Your task to perform on an android device: turn off notifications settings in the gmail app Image 0: 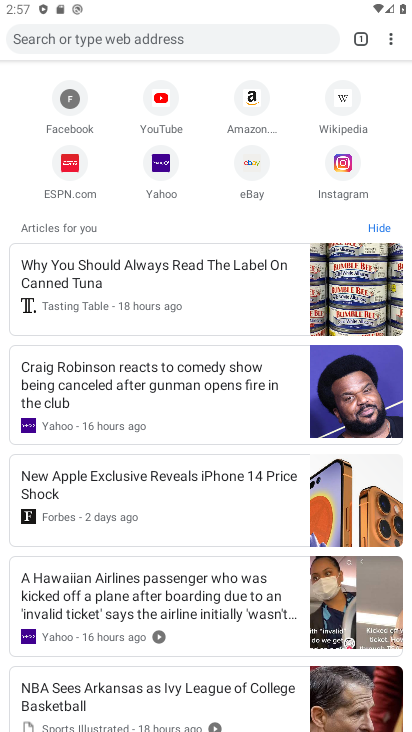
Step 0: press home button
Your task to perform on an android device: turn off notifications settings in the gmail app Image 1: 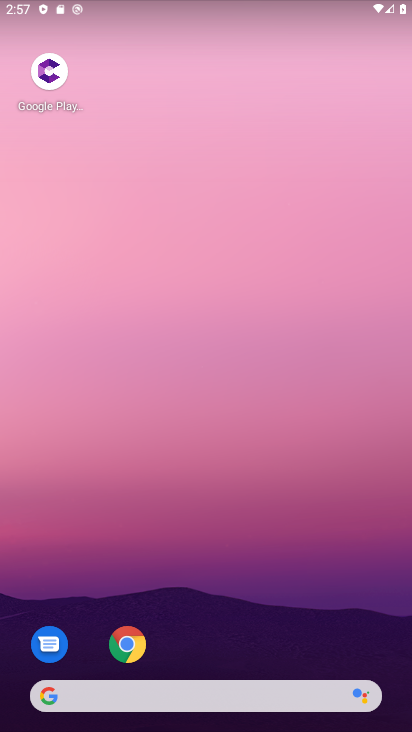
Step 1: drag from (317, 651) to (263, 202)
Your task to perform on an android device: turn off notifications settings in the gmail app Image 2: 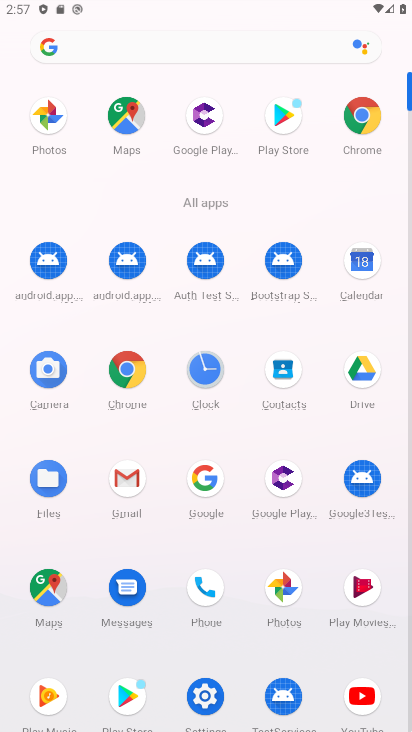
Step 2: click (124, 479)
Your task to perform on an android device: turn off notifications settings in the gmail app Image 3: 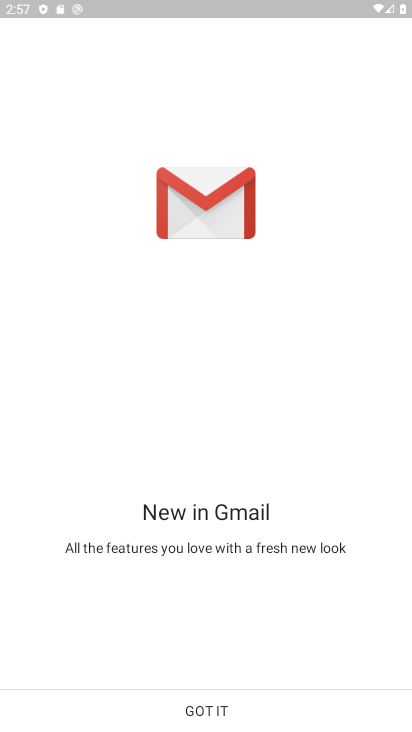
Step 3: click (208, 711)
Your task to perform on an android device: turn off notifications settings in the gmail app Image 4: 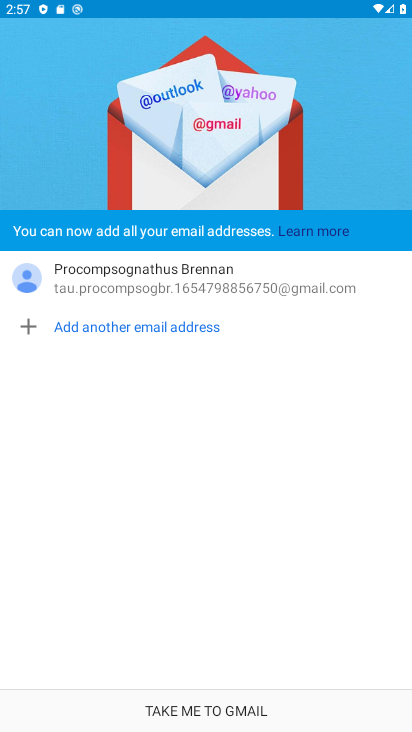
Step 4: click (208, 711)
Your task to perform on an android device: turn off notifications settings in the gmail app Image 5: 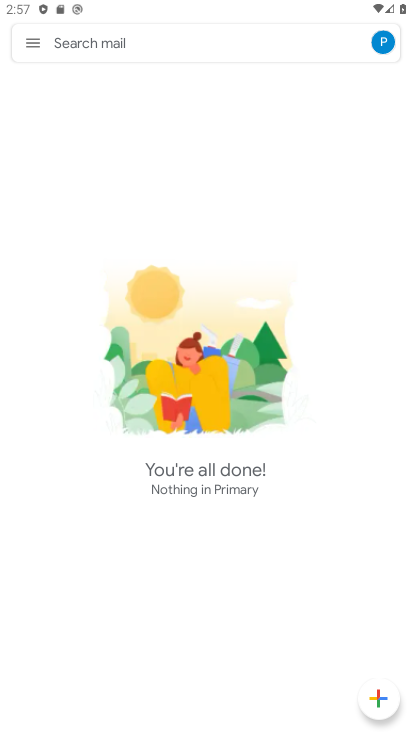
Step 5: click (33, 43)
Your task to perform on an android device: turn off notifications settings in the gmail app Image 6: 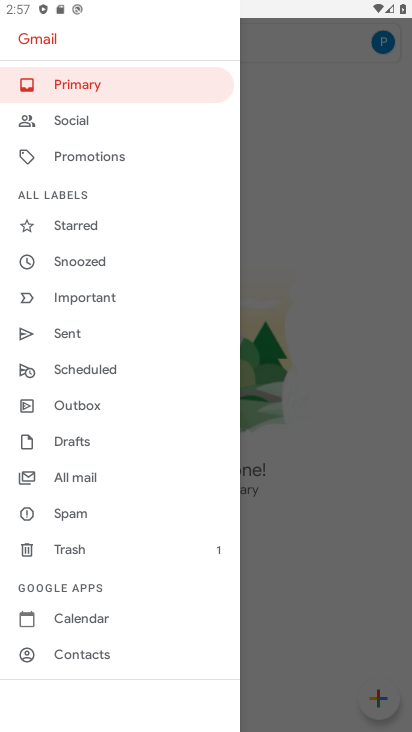
Step 6: drag from (127, 663) to (120, 149)
Your task to perform on an android device: turn off notifications settings in the gmail app Image 7: 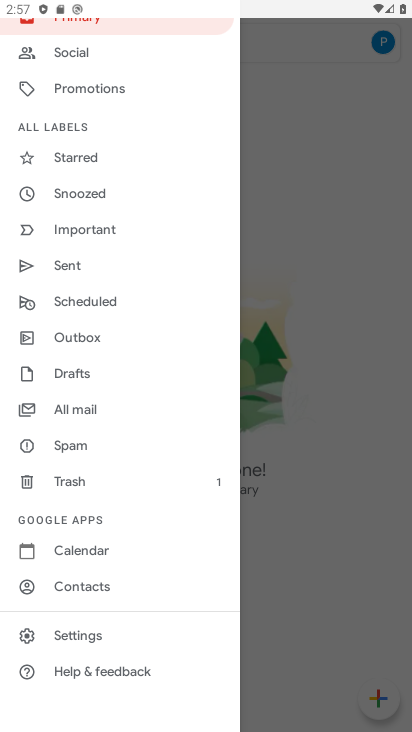
Step 7: click (80, 635)
Your task to perform on an android device: turn off notifications settings in the gmail app Image 8: 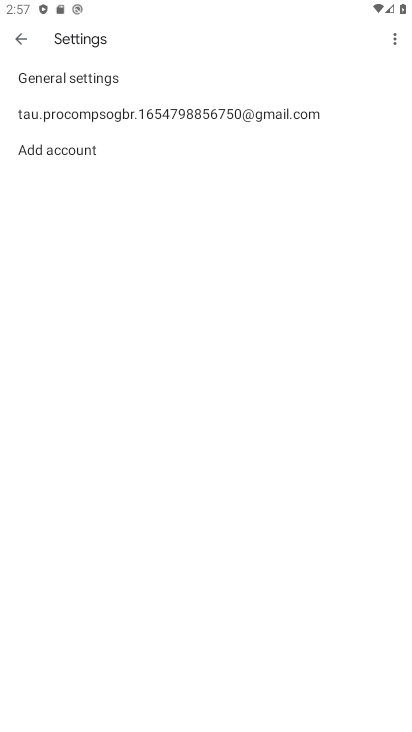
Step 8: click (127, 112)
Your task to perform on an android device: turn off notifications settings in the gmail app Image 9: 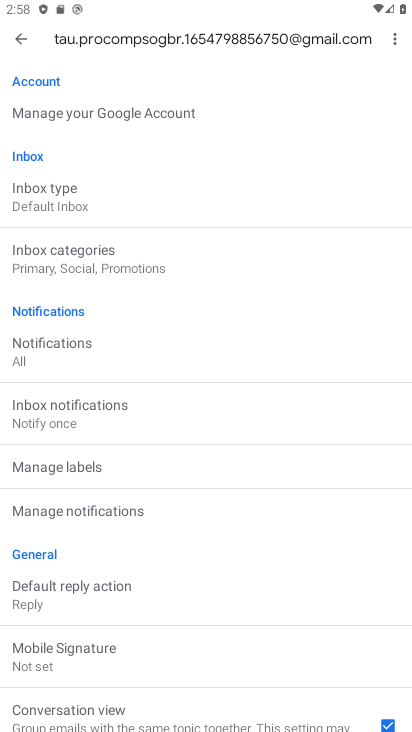
Step 9: click (104, 517)
Your task to perform on an android device: turn off notifications settings in the gmail app Image 10: 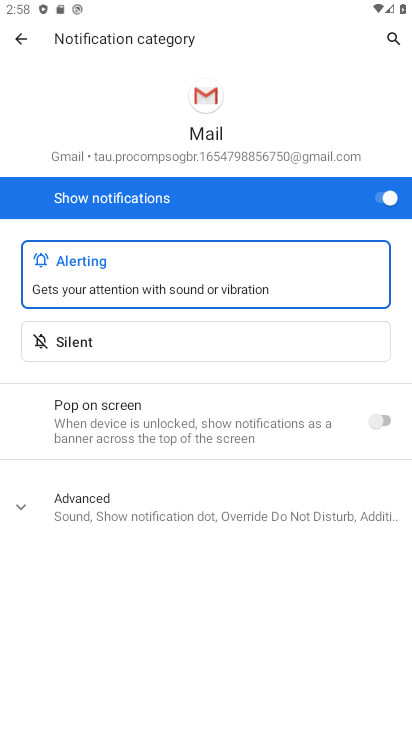
Step 10: click (375, 195)
Your task to perform on an android device: turn off notifications settings in the gmail app Image 11: 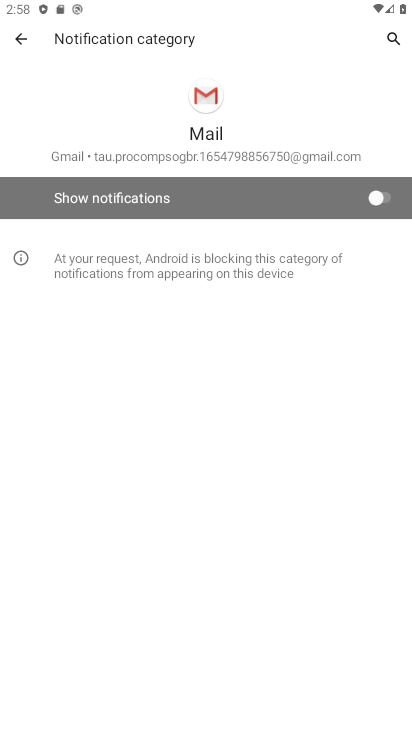
Step 11: task complete